Your task to perform on an android device: change the clock display to analog Image 0: 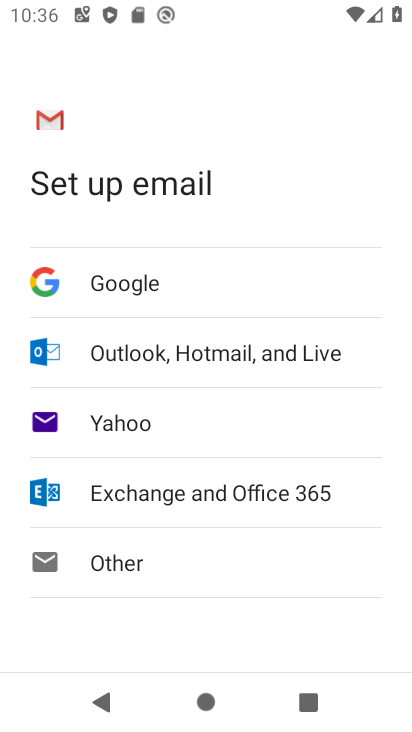
Step 0: press home button
Your task to perform on an android device: change the clock display to analog Image 1: 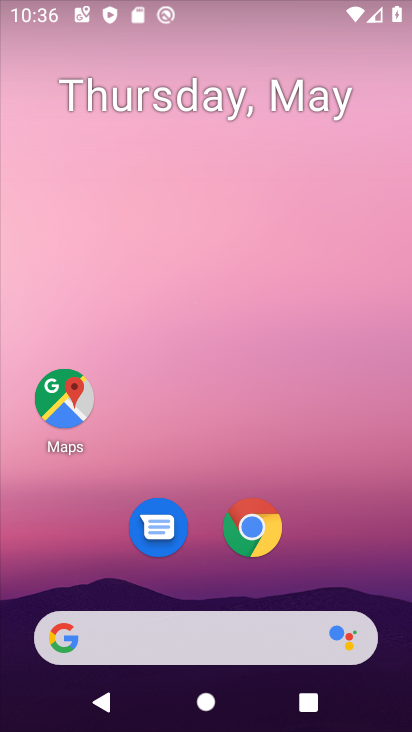
Step 1: drag from (310, 521) to (230, 137)
Your task to perform on an android device: change the clock display to analog Image 2: 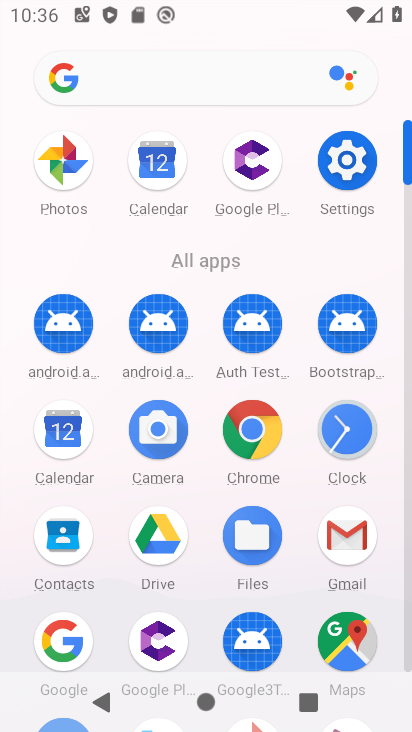
Step 2: click (347, 443)
Your task to perform on an android device: change the clock display to analog Image 3: 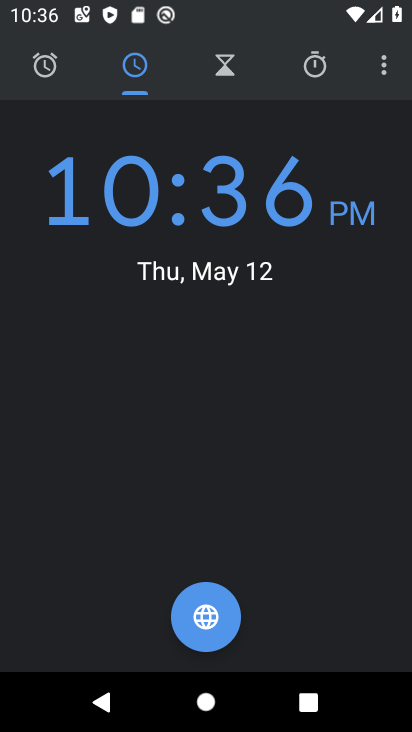
Step 3: click (381, 53)
Your task to perform on an android device: change the clock display to analog Image 4: 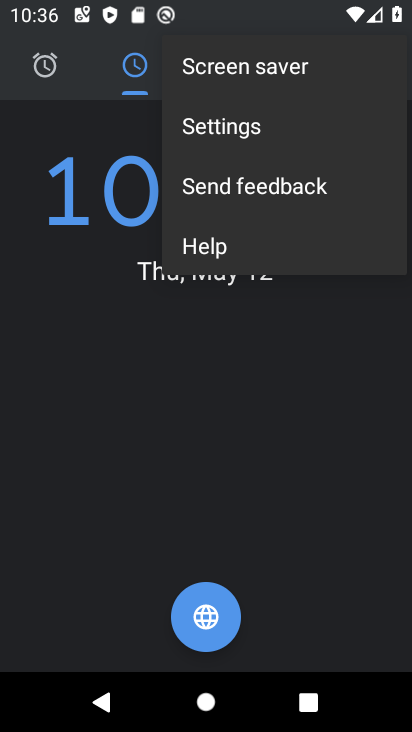
Step 4: click (242, 139)
Your task to perform on an android device: change the clock display to analog Image 5: 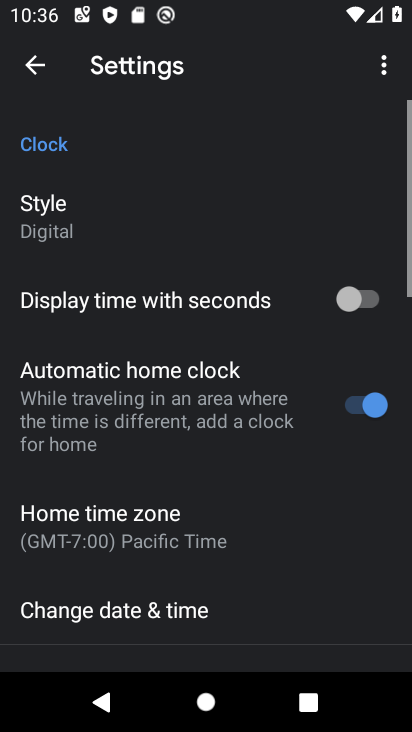
Step 5: click (97, 223)
Your task to perform on an android device: change the clock display to analog Image 6: 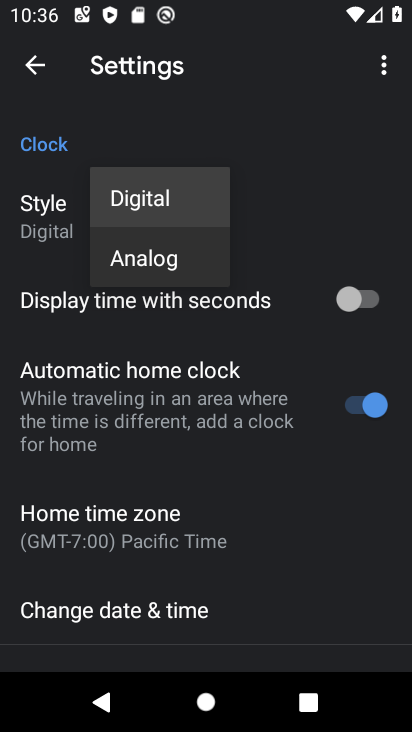
Step 6: click (148, 273)
Your task to perform on an android device: change the clock display to analog Image 7: 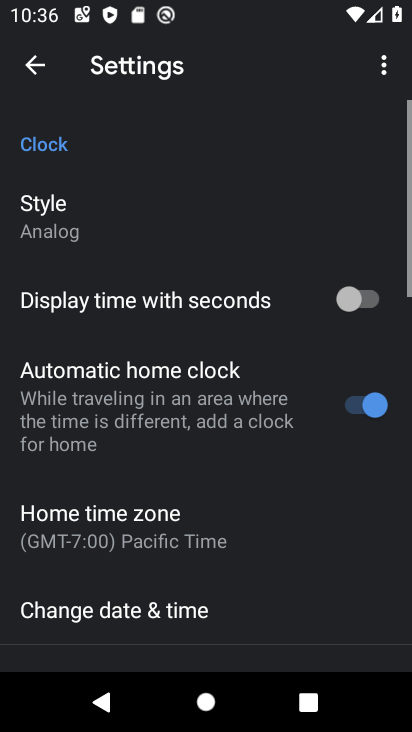
Step 7: task complete